Your task to perform on an android device: Open calendar and show me the first week of next month Image 0: 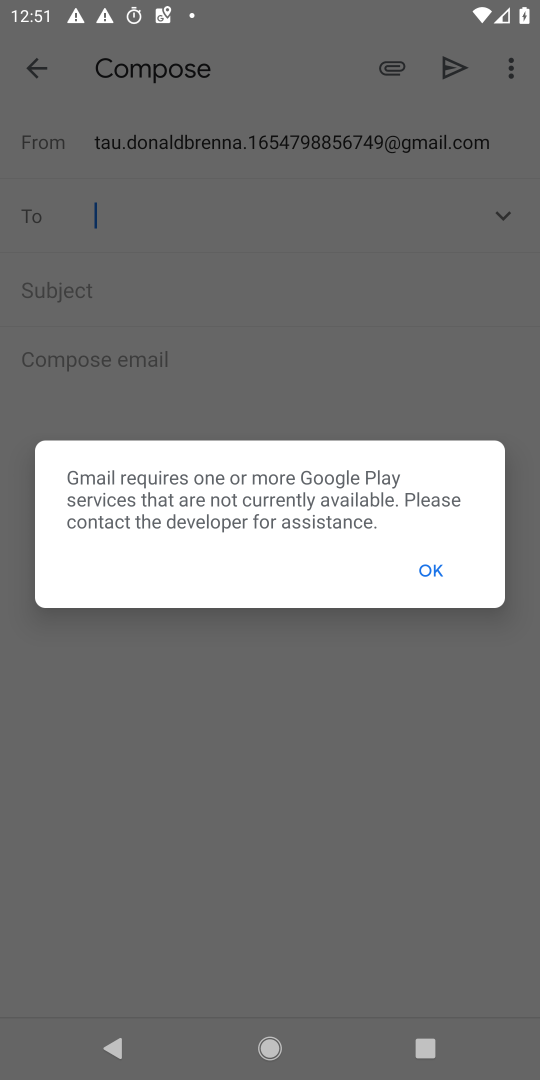
Step 0: press home button
Your task to perform on an android device: Open calendar and show me the first week of next month Image 1: 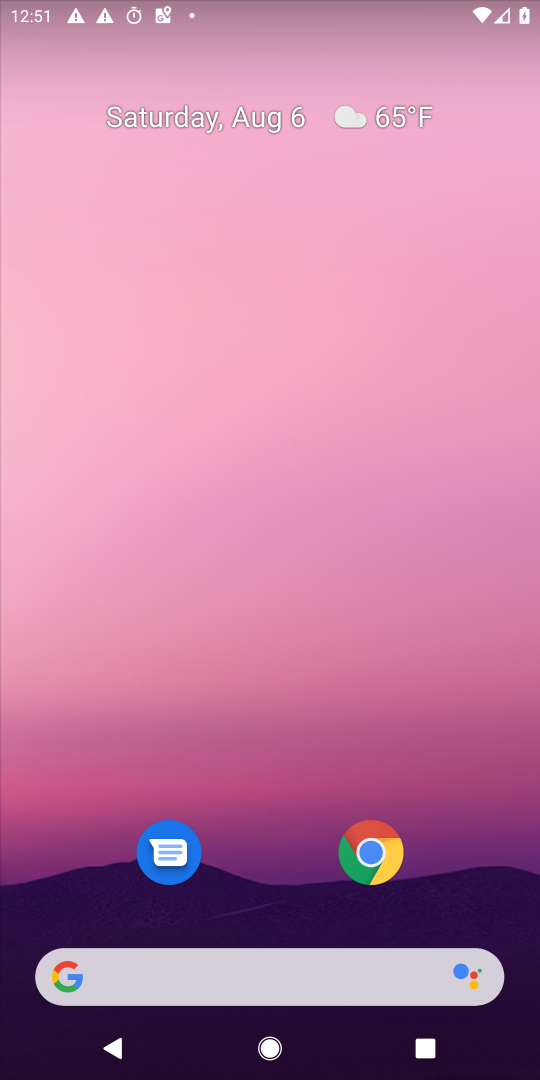
Step 1: drag from (335, 992) to (391, 206)
Your task to perform on an android device: Open calendar and show me the first week of next month Image 2: 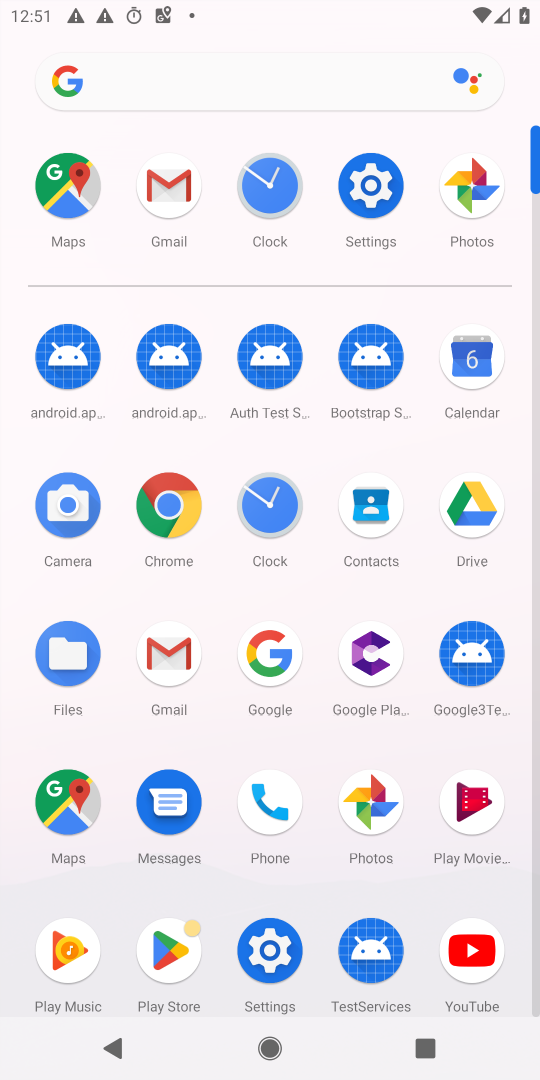
Step 2: click (462, 368)
Your task to perform on an android device: Open calendar and show me the first week of next month Image 3: 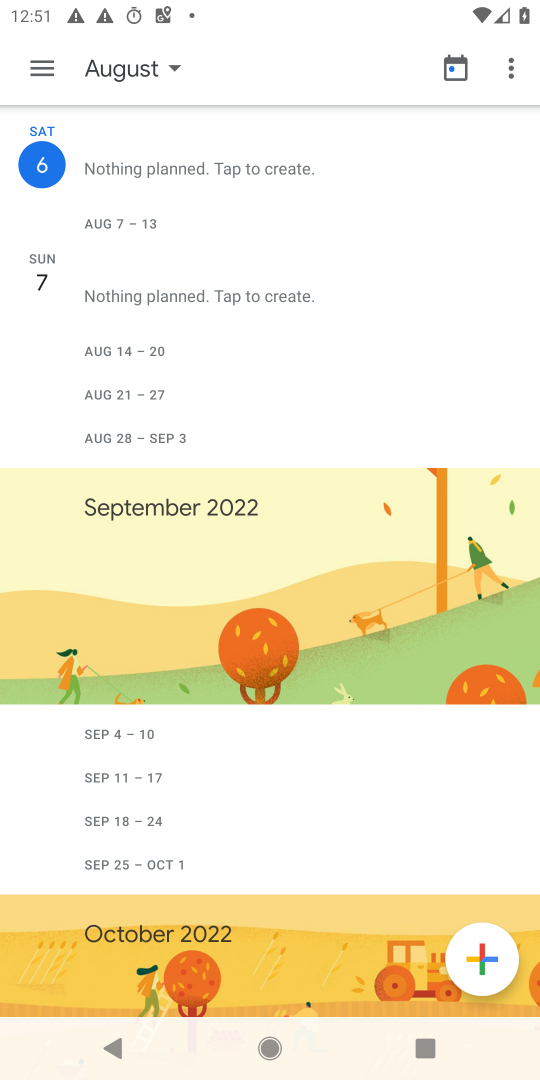
Step 3: click (41, 80)
Your task to perform on an android device: Open calendar and show me the first week of next month Image 4: 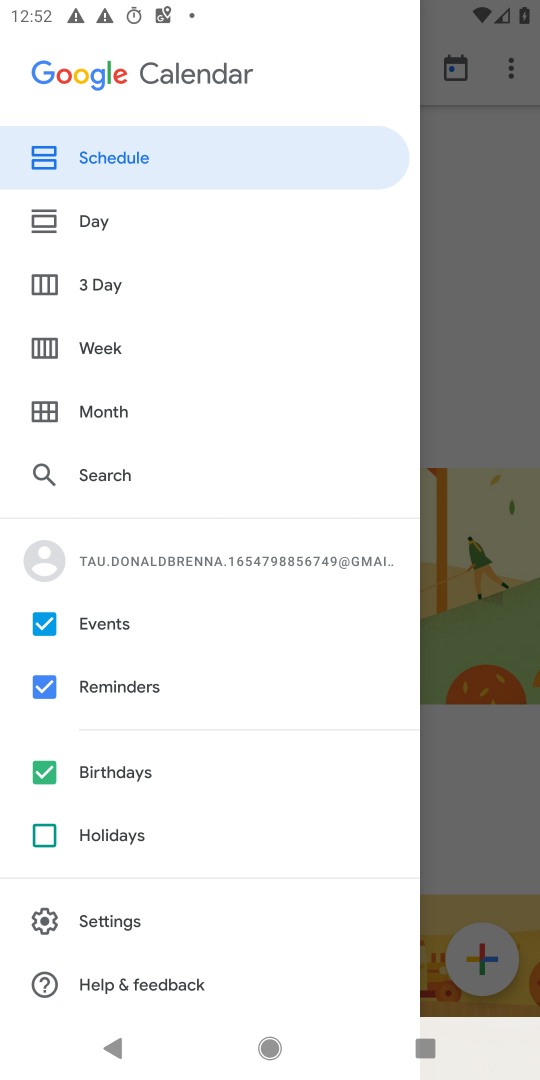
Step 4: click (118, 396)
Your task to perform on an android device: Open calendar and show me the first week of next month Image 5: 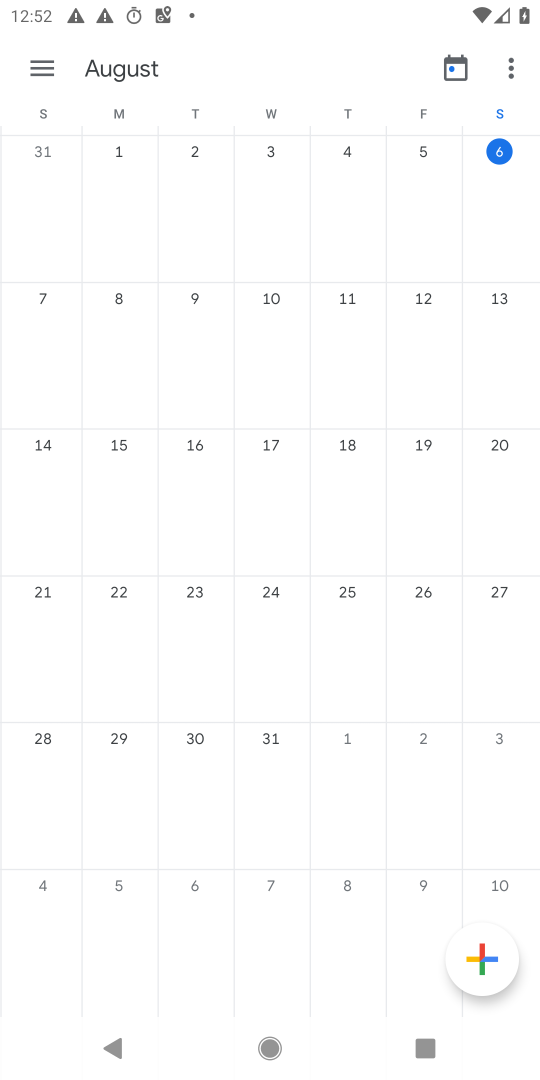
Step 5: drag from (446, 470) to (1, 439)
Your task to perform on an android device: Open calendar and show me the first week of next month Image 6: 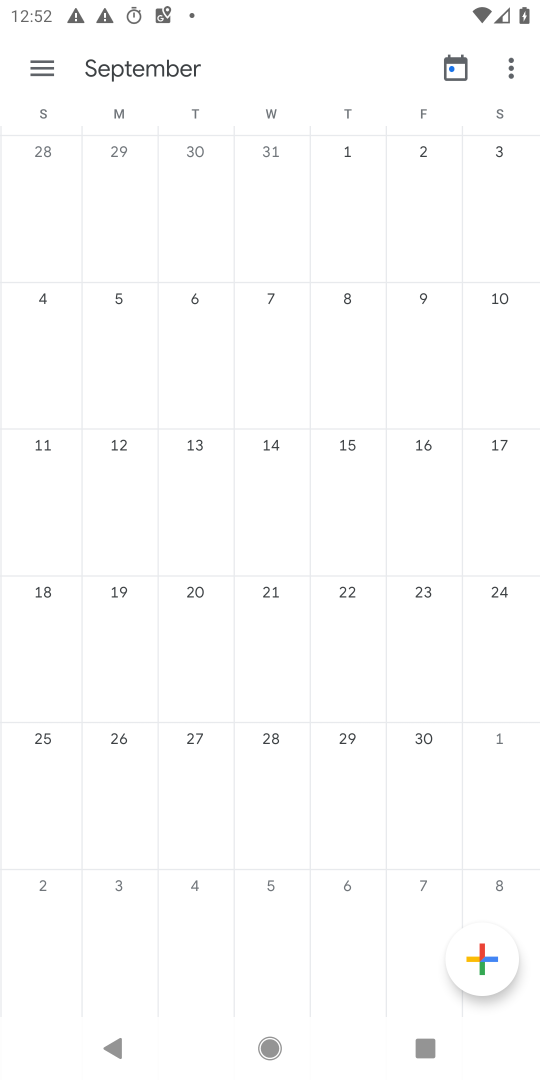
Step 6: click (99, 327)
Your task to perform on an android device: Open calendar and show me the first week of next month Image 7: 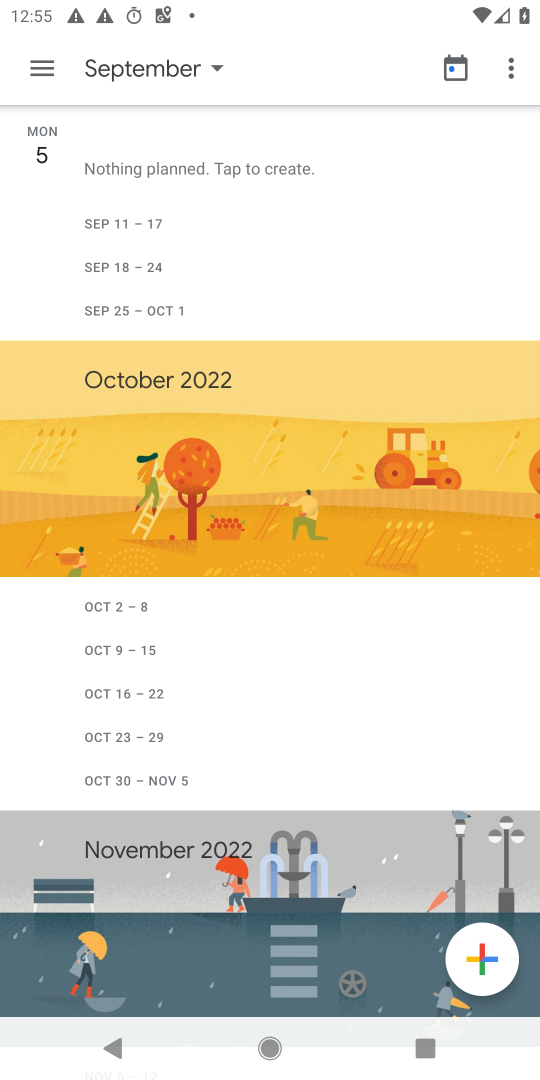
Step 7: task complete